Your task to perform on an android device: Open calendar and show me the fourth week of next month Image 0: 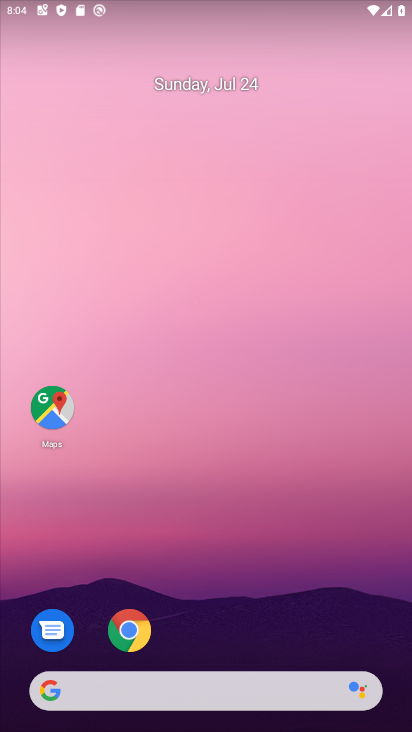
Step 0: drag from (233, 637) to (184, 63)
Your task to perform on an android device: Open calendar and show me the fourth week of next month Image 1: 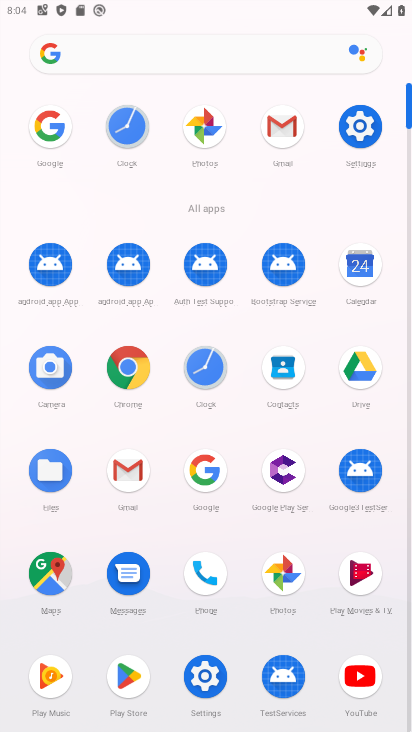
Step 1: click (387, 272)
Your task to perform on an android device: Open calendar and show me the fourth week of next month Image 2: 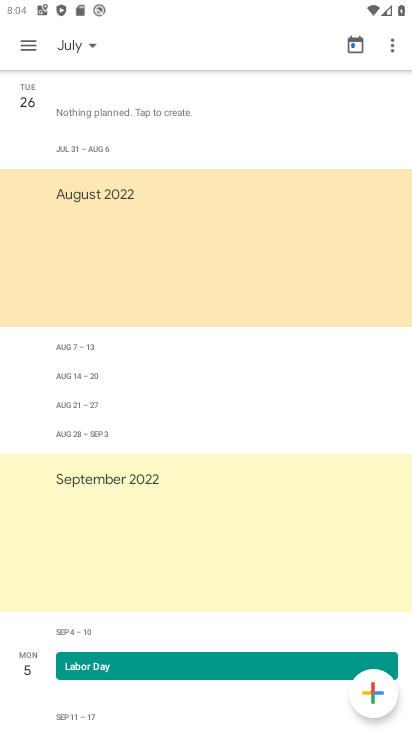
Step 2: click (88, 45)
Your task to perform on an android device: Open calendar and show me the fourth week of next month Image 3: 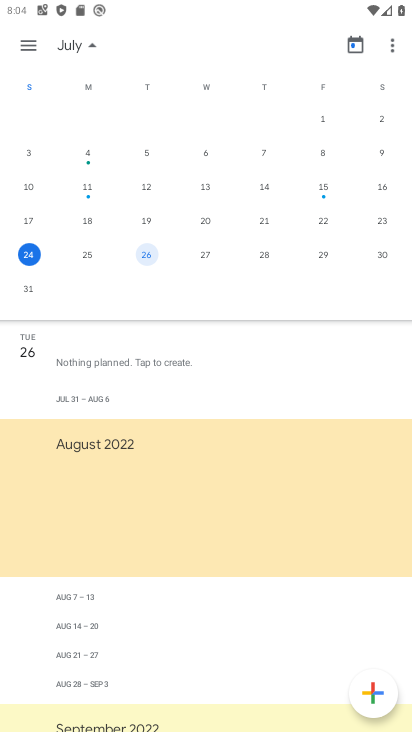
Step 3: drag from (386, 208) to (2, 162)
Your task to perform on an android device: Open calendar and show me the fourth week of next month Image 4: 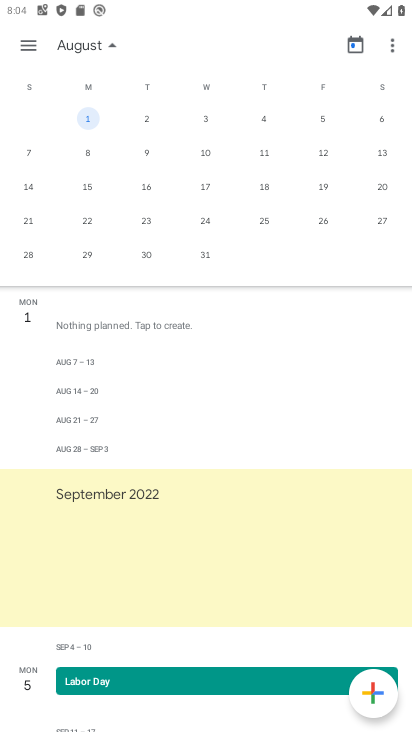
Step 4: click (34, 226)
Your task to perform on an android device: Open calendar and show me the fourth week of next month Image 5: 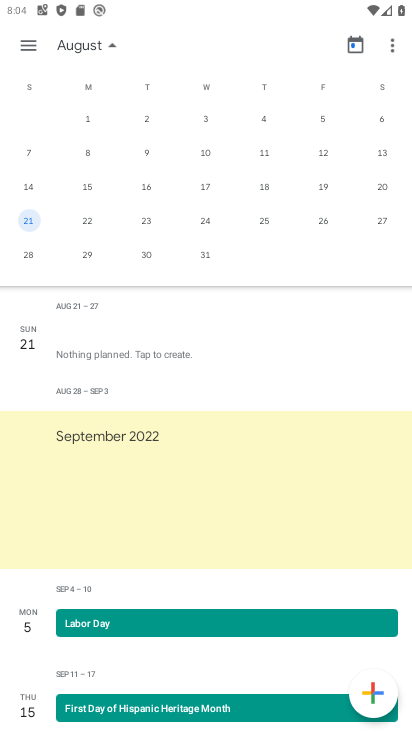
Step 5: task complete